Your task to perform on an android device: Go to Android settings Image 0: 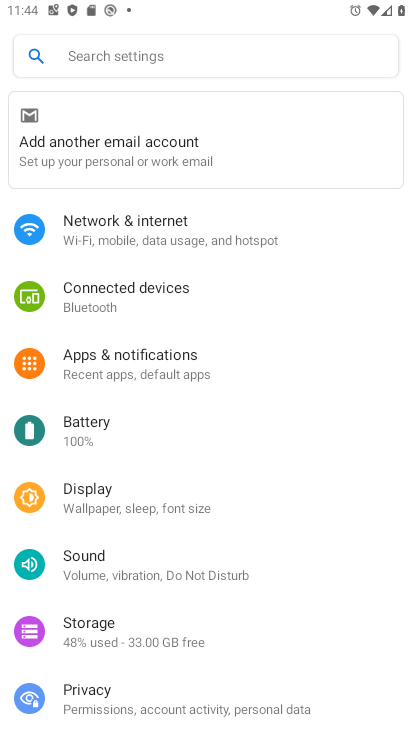
Step 0: press home button
Your task to perform on an android device: Go to Android settings Image 1: 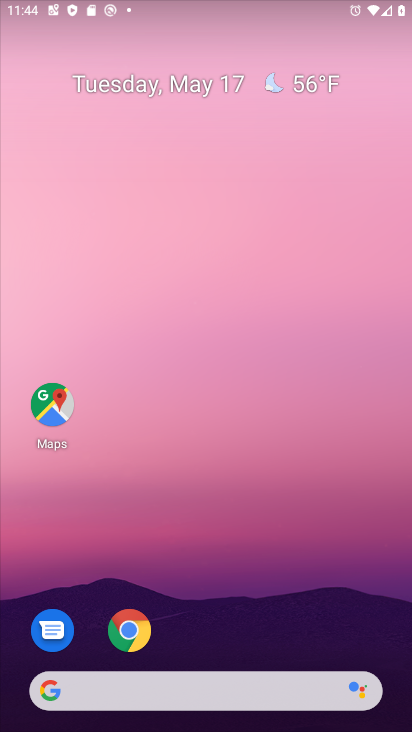
Step 1: drag from (332, 560) to (303, 209)
Your task to perform on an android device: Go to Android settings Image 2: 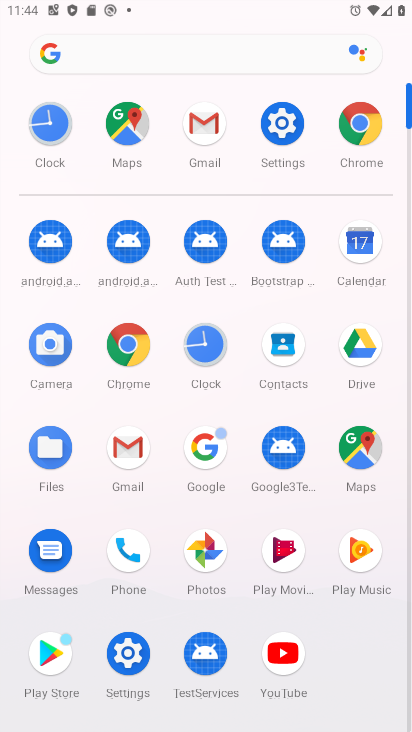
Step 2: click (127, 651)
Your task to perform on an android device: Go to Android settings Image 3: 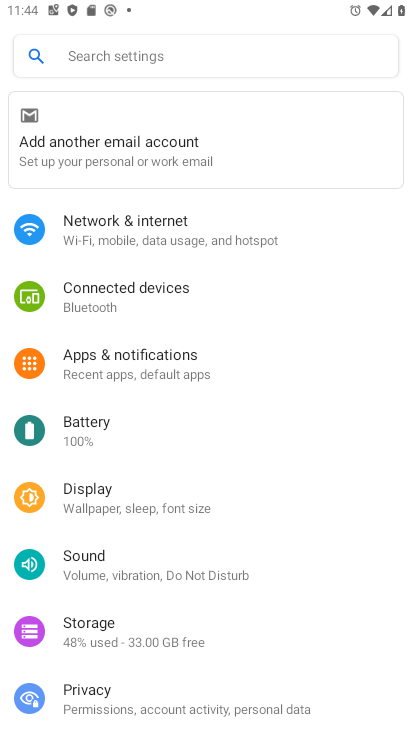
Step 3: task complete